Your task to perform on an android device: Find coffee shops on Maps Image 0: 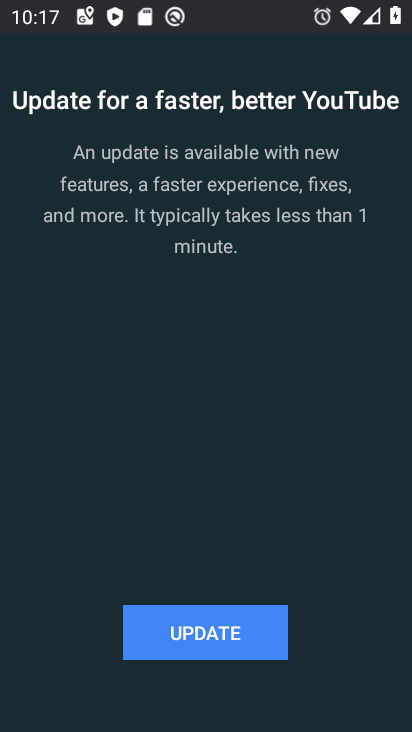
Step 0: press enter
Your task to perform on an android device: Find coffee shops on Maps Image 1: 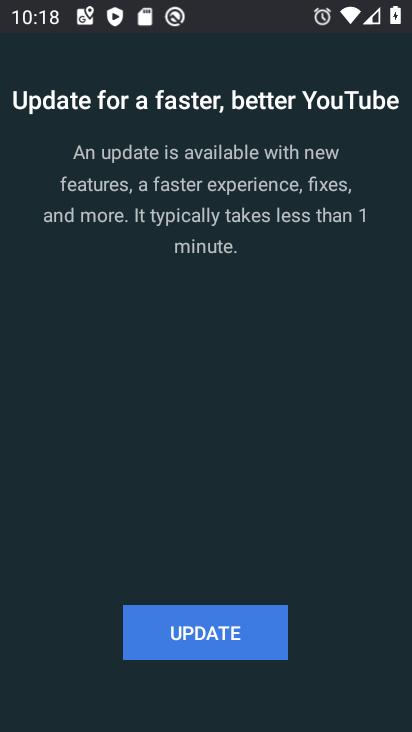
Step 1: press home button
Your task to perform on an android device: Find coffee shops on Maps Image 2: 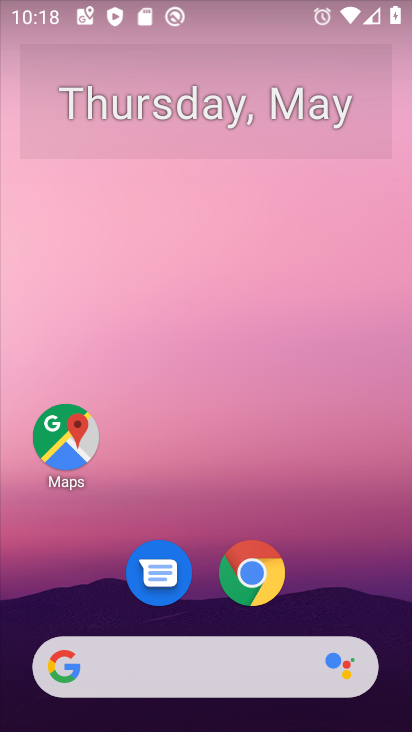
Step 2: click (86, 437)
Your task to perform on an android device: Find coffee shops on Maps Image 3: 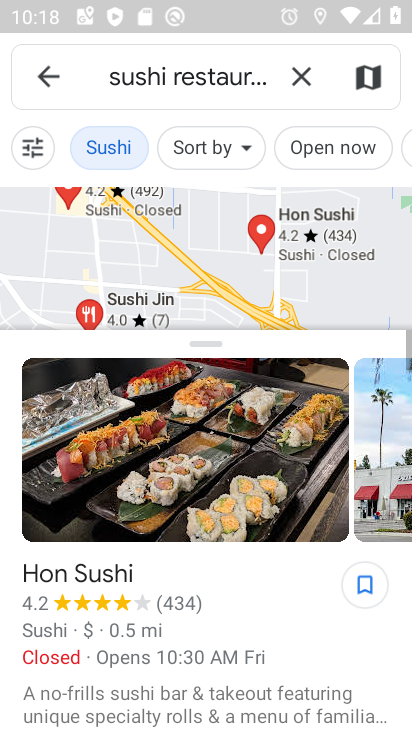
Step 3: click (291, 81)
Your task to perform on an android device: Find coffee shops on Maps Image 4: 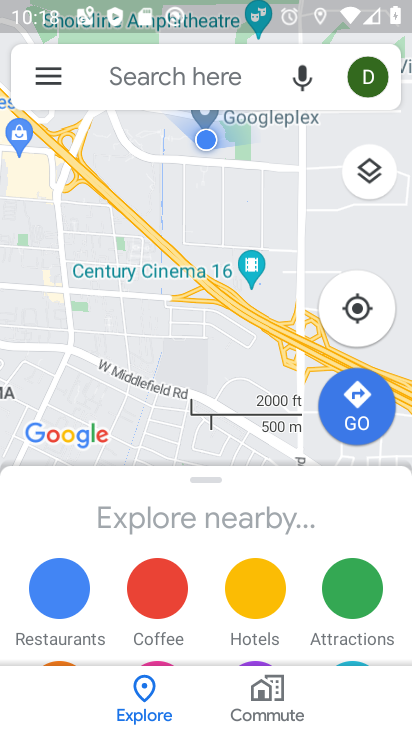
Step 4: click (138, 77)
Your task to perform on an android device: Find coffee shops on Maps Image 5: 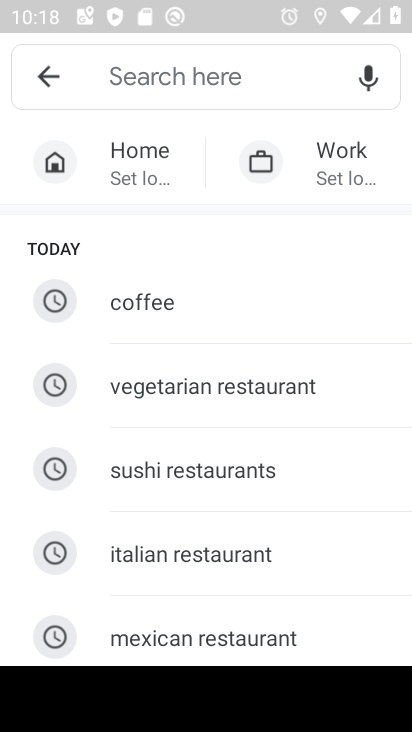
Step 5: type "coffee shops"
Your task to perform on an android device: Find coffee shops on Maps Image 6: 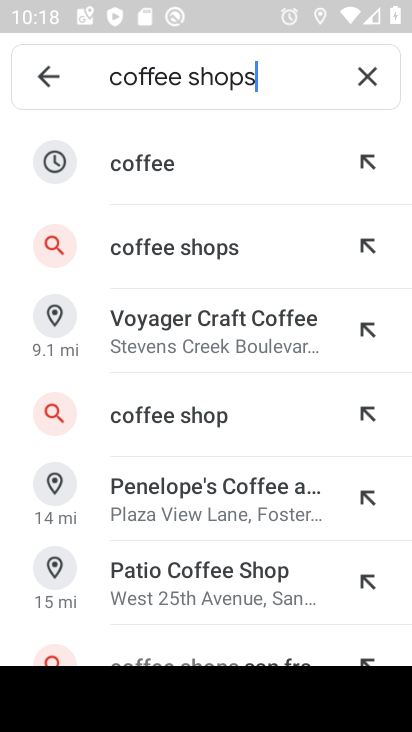
Step 6: click (173, 260)
Your task to perform on an android device: Find coffee shops on Maps Image 7: 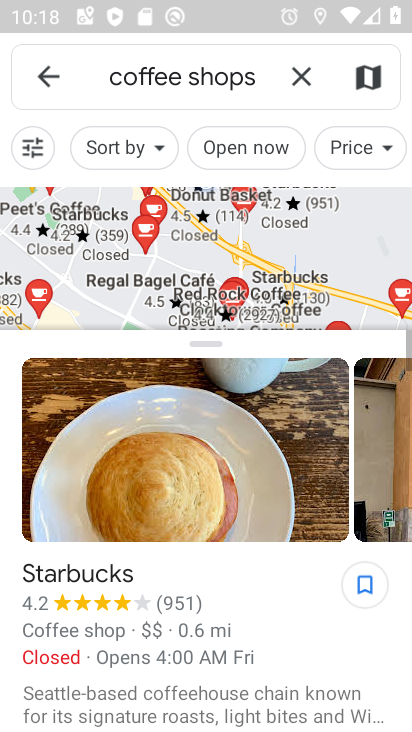
Step 7: task complete